Your task to perform on an android device: allow notifications from all sites in the chrome app Image 0: 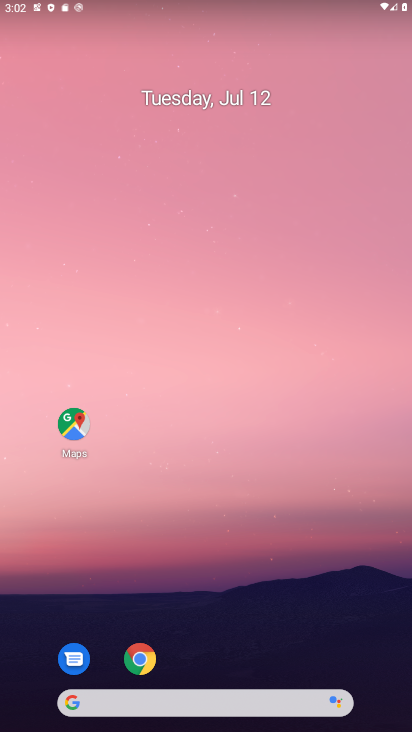
Step 0: drag from (204, 730) to (200, 272)
Your task to perform on an android device: allow notifications from all sites in the chrome app Image 1: 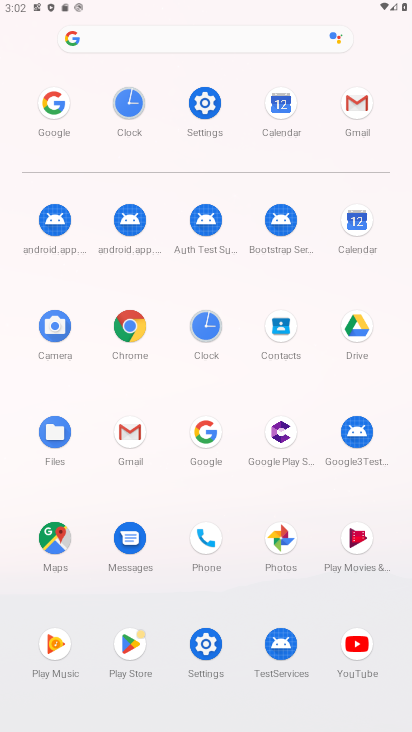
Step 1: click (124, 321)
Your task to perform on an android device: allow notifications from all sites in the chrome app Image 2: 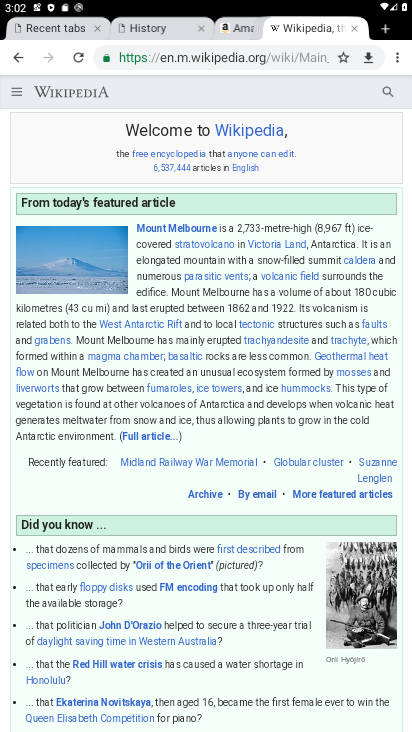
Step 2: click (398, 60)
Your task to perform on an android device: allow notifications from all sites in the chrome app Image 3: 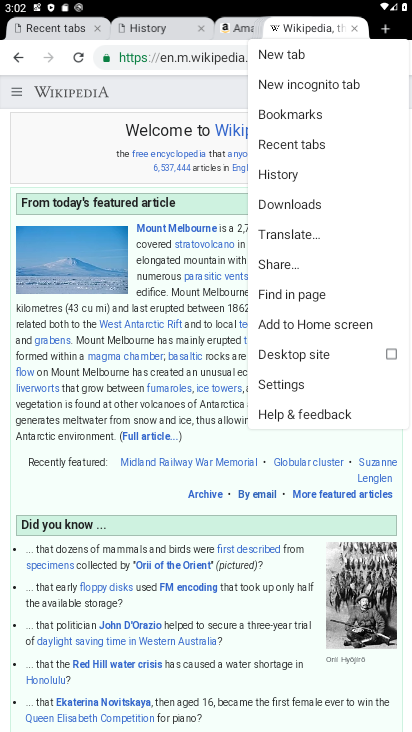
Step 3: click (286, 383)
Your task to perform on an android device: allow notifications from all sites in the chrome app Image 4: 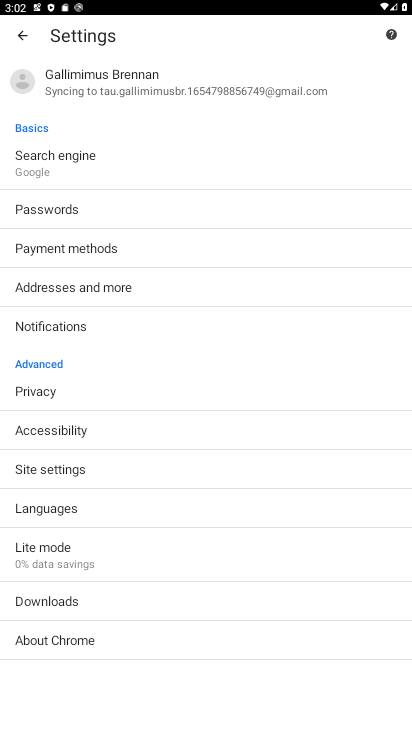
Step 4: click (50, 466)
Your task to perform on an android device: allow notifications from all sites in the chrome app Image 5: 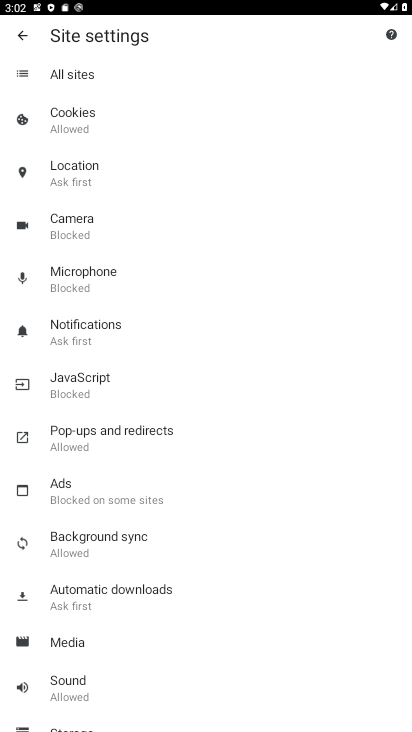
Step 5: click (64, 329)
Your task to perform on an android device: allow notifications from all sites in the chrome app Image 6: 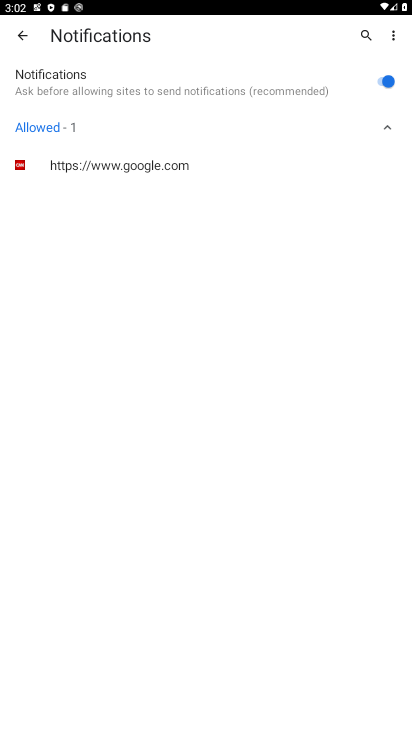
Step 6: task complete